Your task to perform on an android device: check android version Image 0: 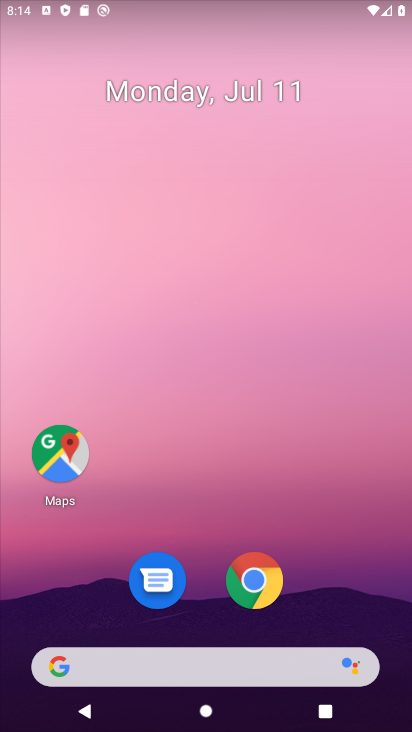
Step 0: drag from (399, 620) to (218, 64)
Your task to perform on an android device: check android version Image 1: 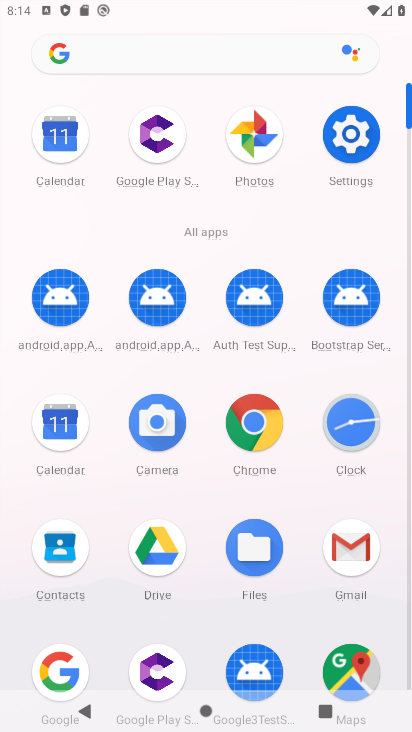
Step 1: drag from (281, 618) to (60, 73)
Your task to perform on an android device: check android version Image 2: 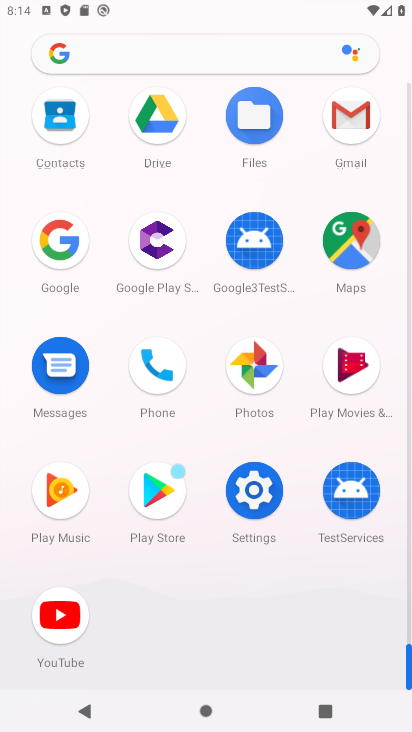
Step 2: click (242, 506)
Your task to perform on an android device: check android version Image 3: 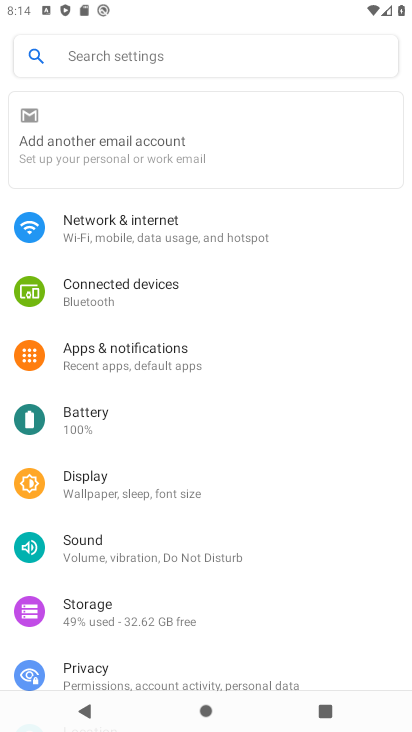
Step 3: drag from (212, 649) to (94, 32)
Your task to perform on an android device: check android version Image 4: 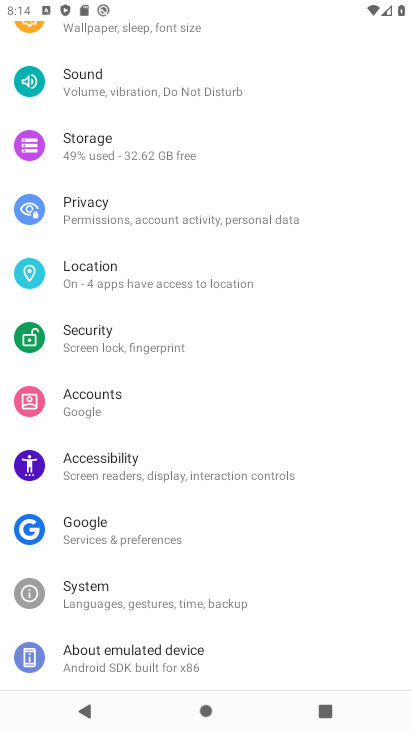
Step 4: click (140, 638)
Your task to perform on an android device: check android version Image 5: 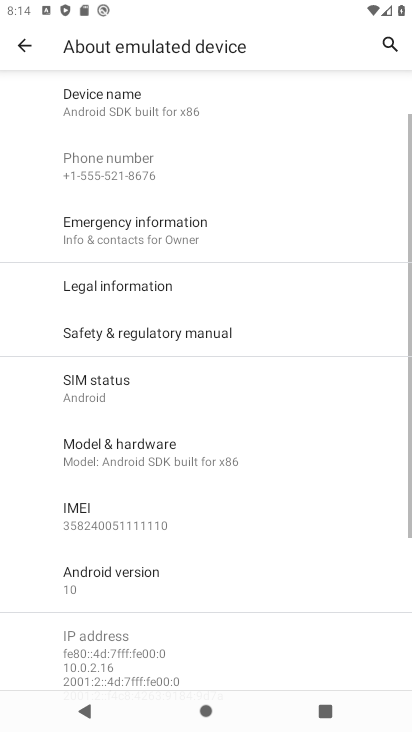
Step 5: click (111, 591)
Your task to perform on an android device: check android version Image 6: 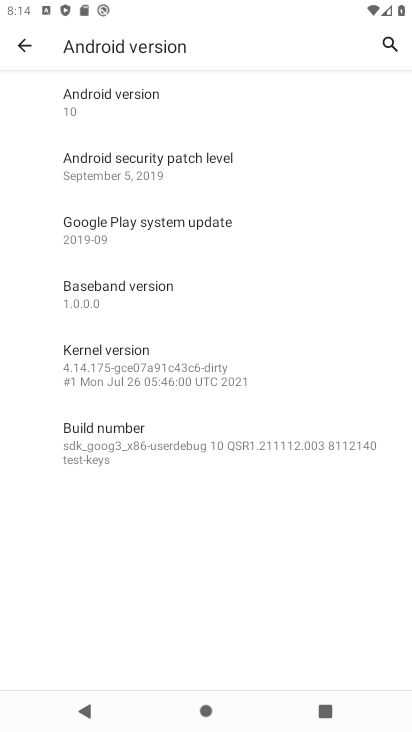
Step 6: task complete